Your task to perform on an android device: toggle notification dots Image 0: 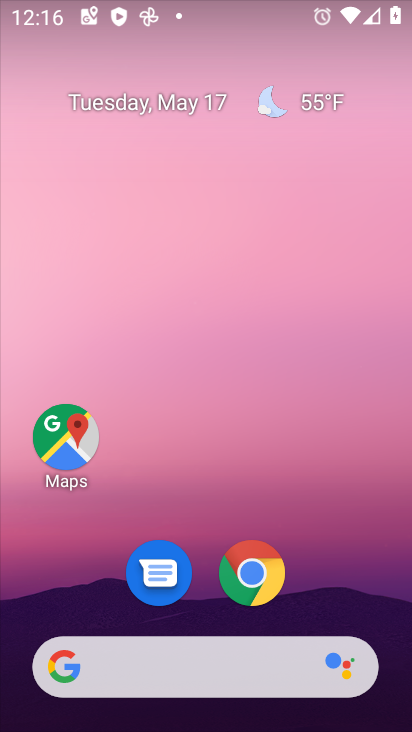
Step 0: drag from (343, 599) to (268, 173)
Your task to perform on an android device: toggle notification dots Image 1: 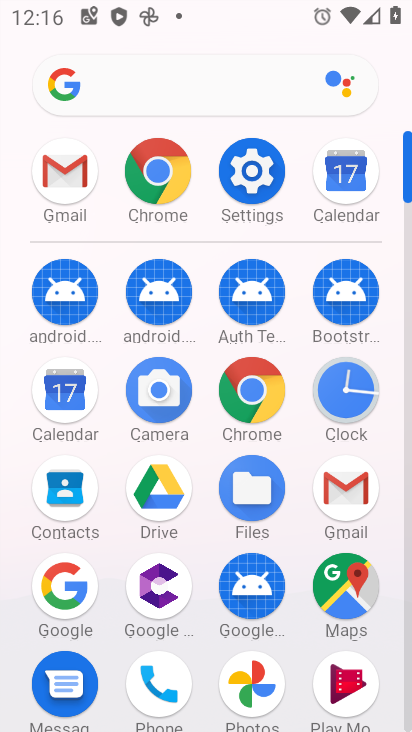
Step 1: drag from (294, 561) to (272, 281)
Your task to perform on an android device: toggle notification dots Image 2: 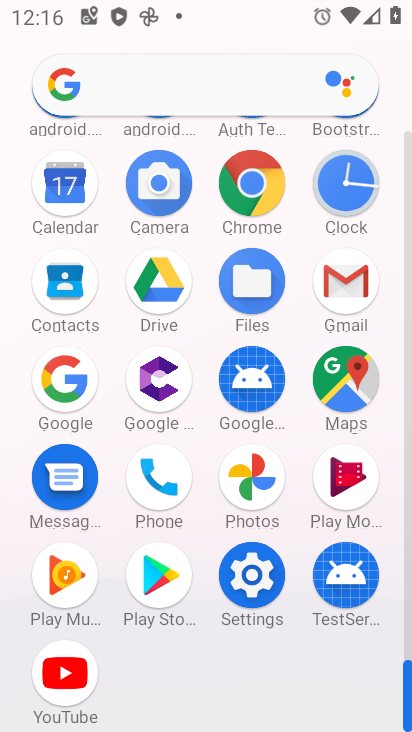
Step 2: click (252, 579)
Your task to perform on an android device: toggle notification dots Image 3: 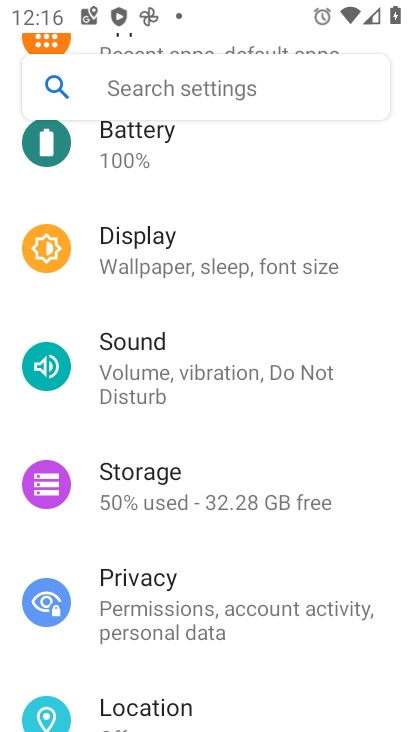
Step 3: drag from (292, 649) to (256, 433)
Your task to perform on an android device: toggle notification dots Image 4: 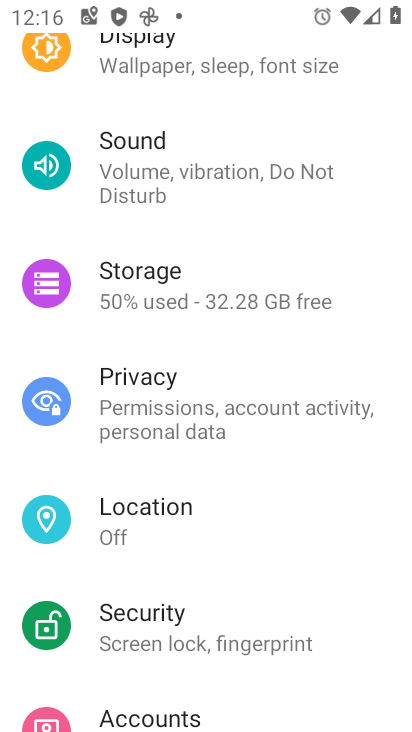
Step 4: drag from (179, 105) to (199, 424)
Your task to perform on an android device: toggle notification dots Image 5: 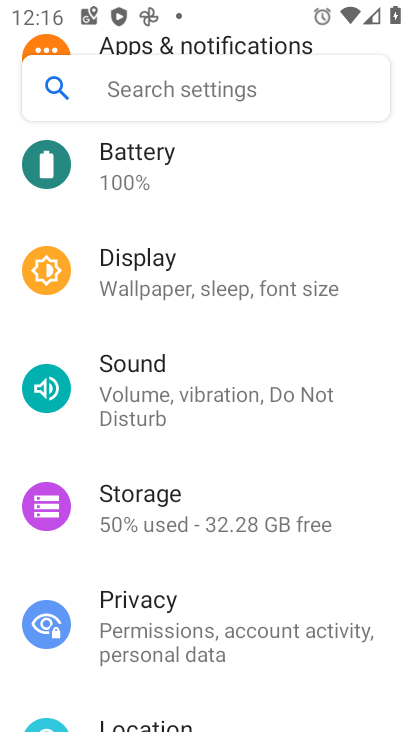
Step 5: click (179, 40)
Your task to perform on an android device: toggle notification dots Image 6: 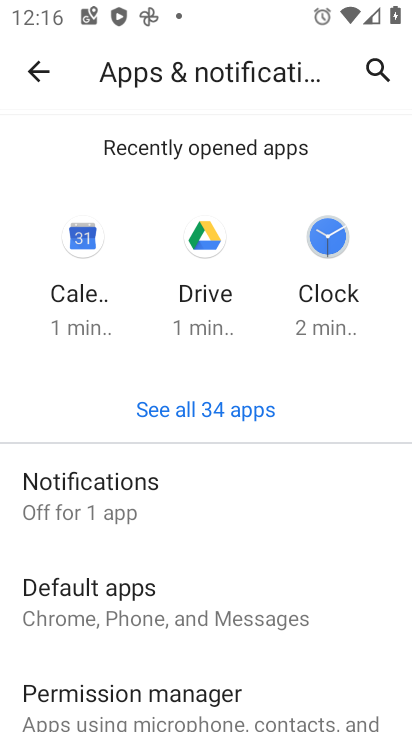
Step 6: click (197, 515)
Your task to perform on an android device: toggle notification dots Image 7: 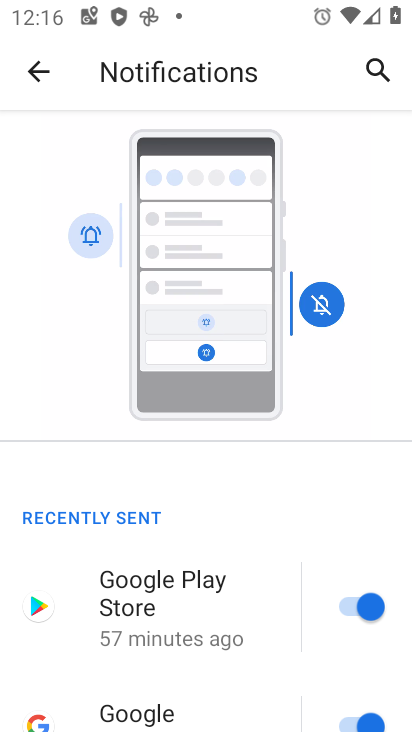
Step 7: drag from (288, 683) to (187, 350)
Your task to perform on an android device: toggle notification dots Image 8: 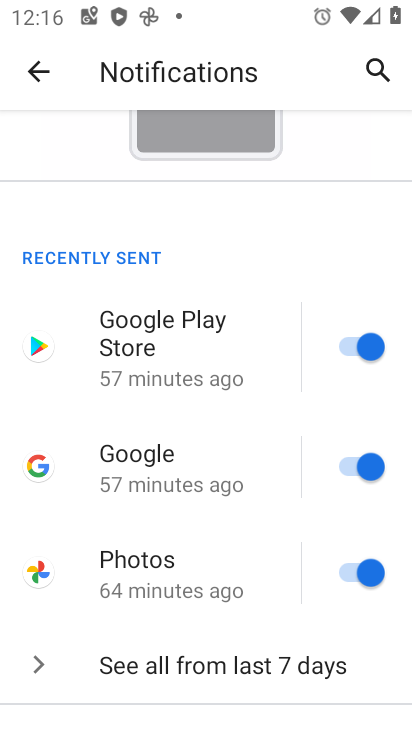
Step 8: drag from (240, 704) to (212, 279)
Your task to perform on an android device: toggle notification dots Image 9: 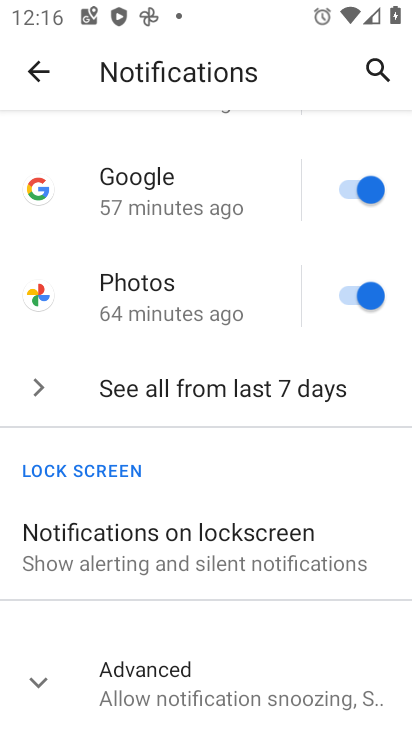
Step 9: click (63, 671)
Your task to perform on an android device: toggle notification dots Image 10: 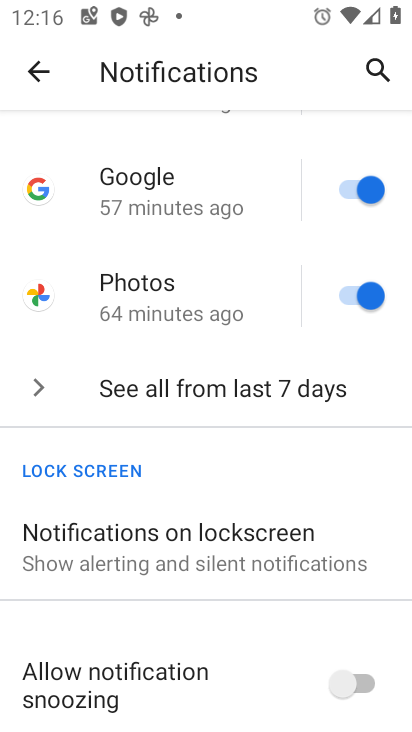
Step 10: drag from (228, 648) to (209, 368)
Your task to perform on an android device: toggle notification dots Image 11: 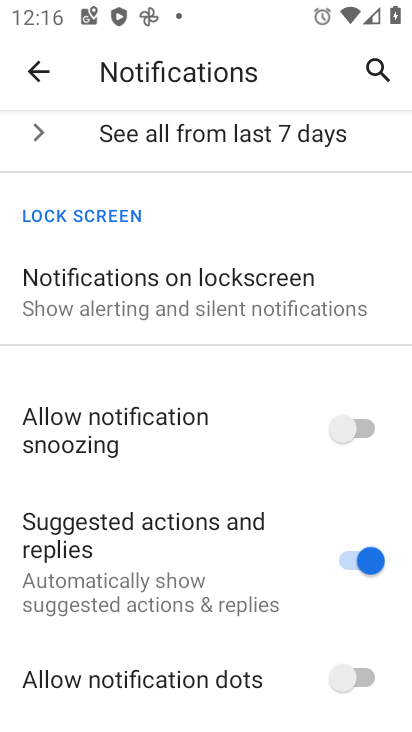
Step 11: click (360, 672)
Your task to perform on an android device: toggle notification dots Image 12: 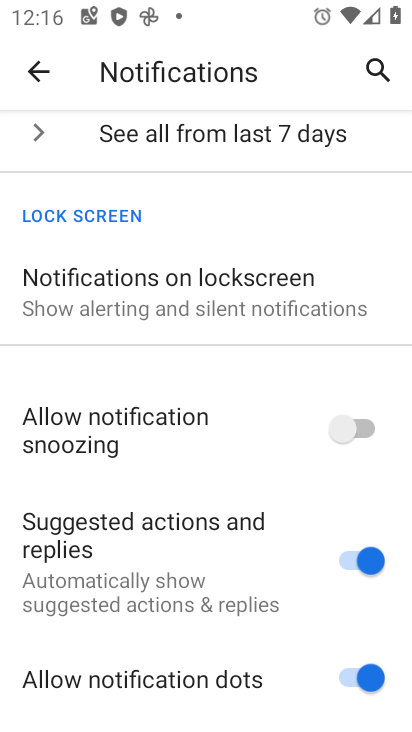
Step 12: task complete